Your task to perform on an android device: check out phone information Image 0: 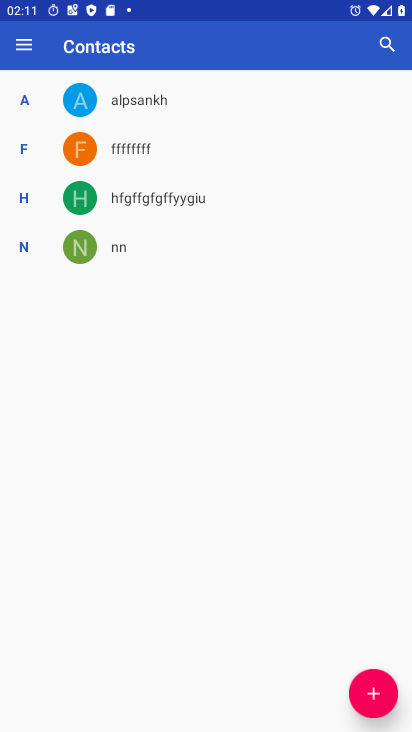
Step 0: press home button
Your task to perform on an android device: check out phone information Image 1: 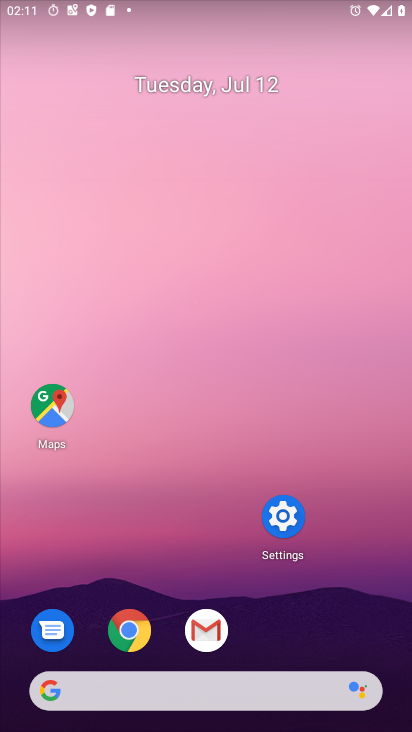
Step 1: click (265, 528)
Your task to perform on an android device: check out phone information Image 2: 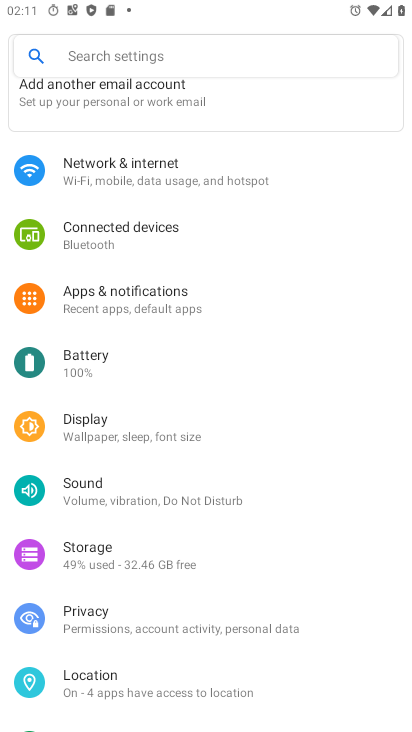
Step 2: click (98, 59)
Your task to perform on an android device: check out phone information Image 3: 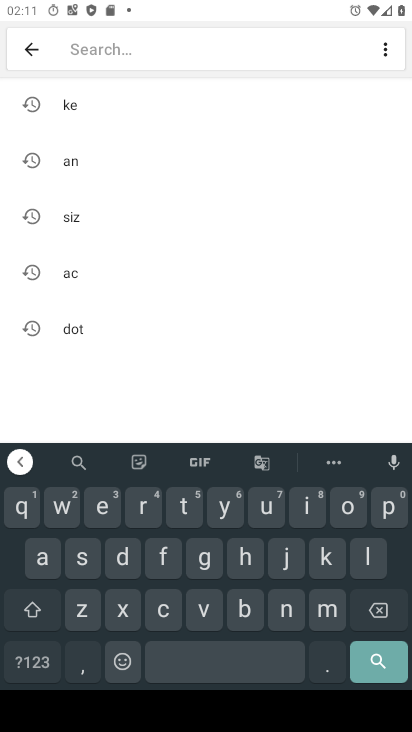
Step 3: click (43, 555)
Your task to perform on an android device: check out phone information Image 4: 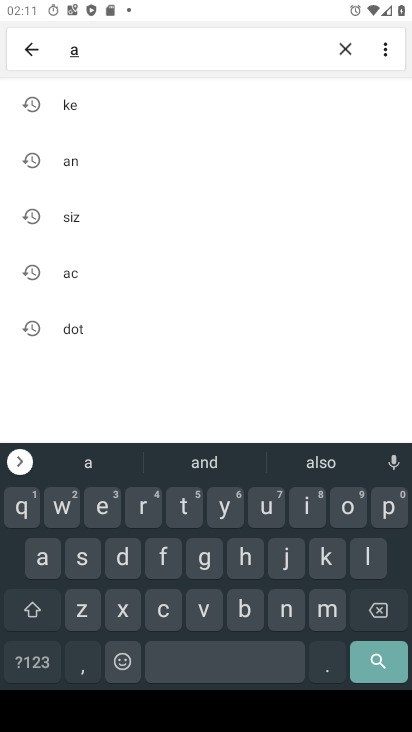
Step 4: click (246, 617)
Your task to perform on an android device: check out phone information Image 5: 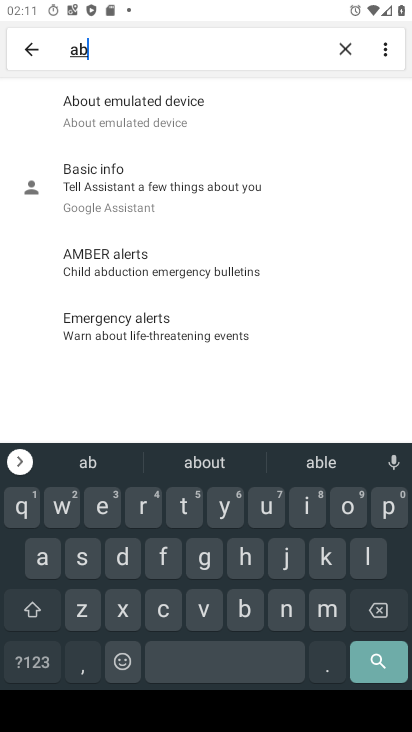
Step 5: click (100, 113)
Your task to perform on an android device: check out phone information Image 6: 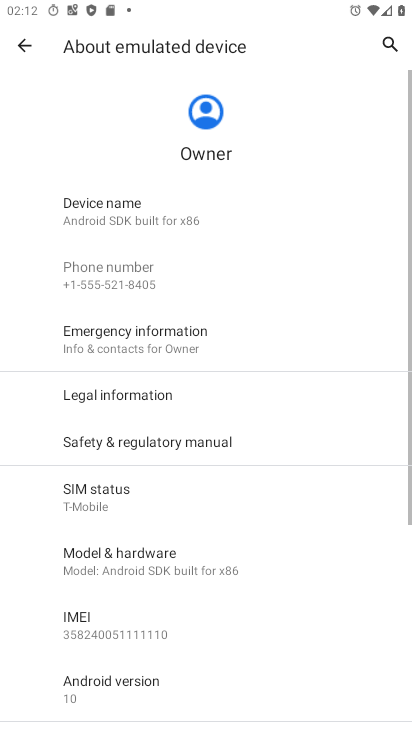
Step 6: task complete